Your task to perform on an android device: Open Google Chrome and click the shortcut for Amazon.com Image 0: 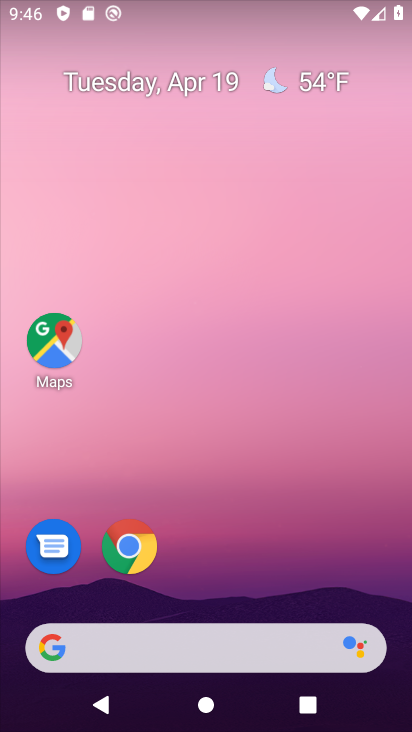
Step 0: click (129, 546)
Your task to perform on an android device: Open Google Chrome and click the shortcut for Amazon.com Image 1: 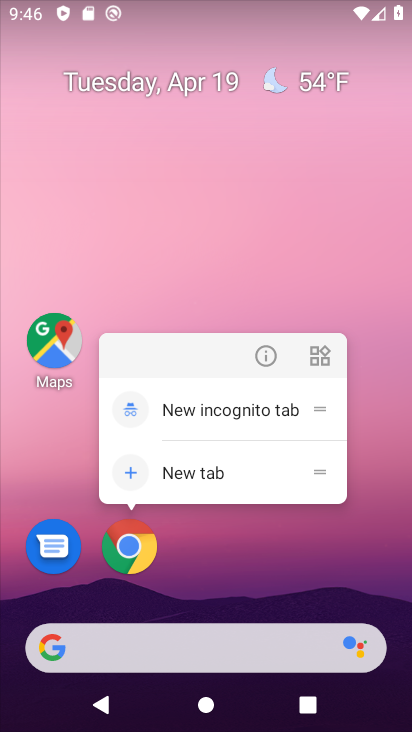
Step 1: click (186, 485)
Your task to perform on an android device: Open Google Chrome and click the shortcut for Amazon.com Image 2: 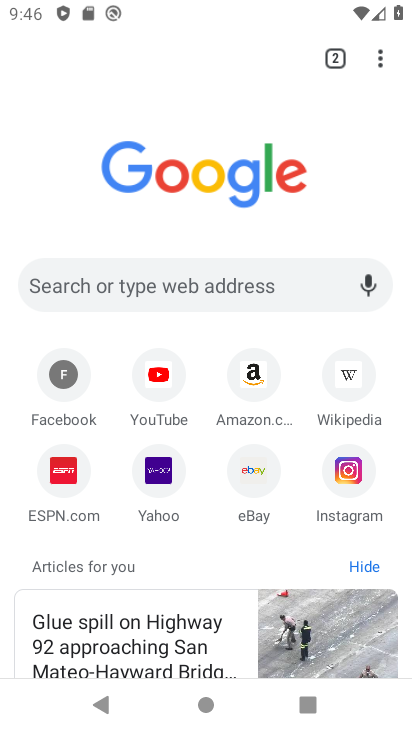
Step 2: click (224, 393)
Your task to perform on an android device: Open Google Chrome and click the shortcut for Amazon.com Image 3: 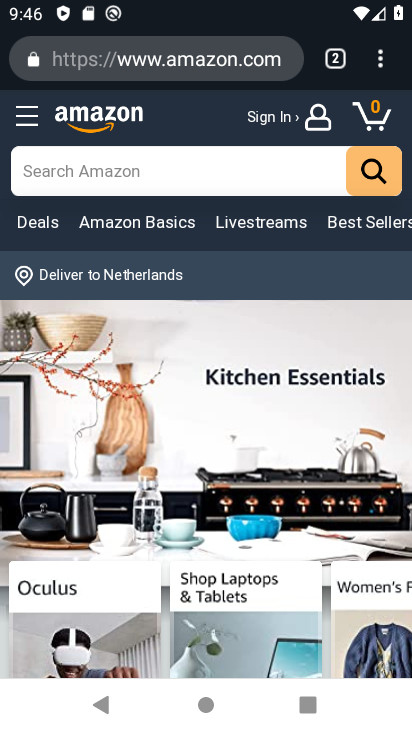
Step 3: task complete